Your task to perform on an android device: add a contact Image 0: 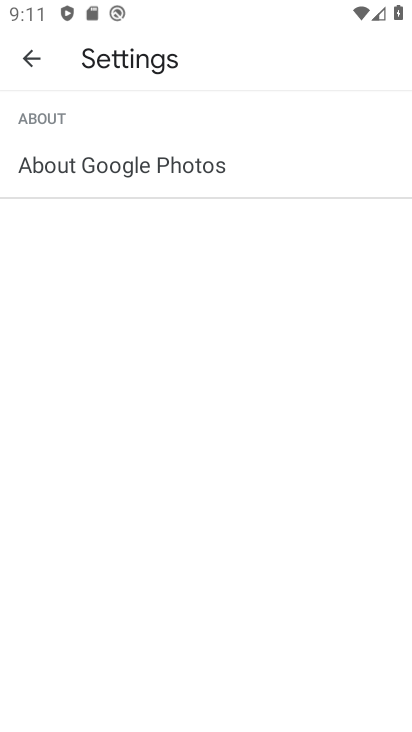
Step 0: press home button
Your task to perform on an android device: add a contact Image 1: 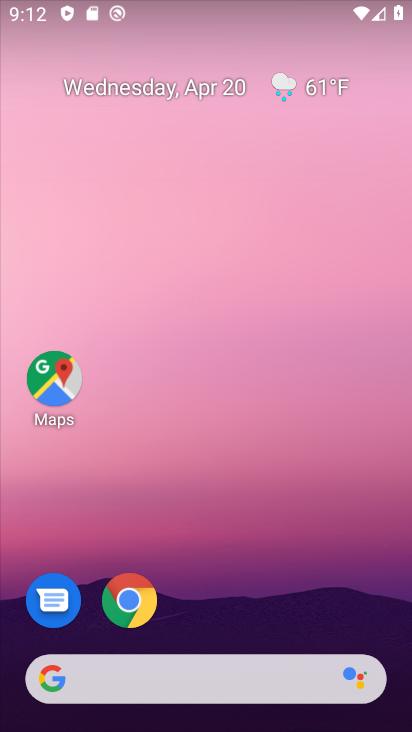
Step 1: drag from (210, 621) to (405, 215)
Your task to perform on an android device: add a contact Image 2: 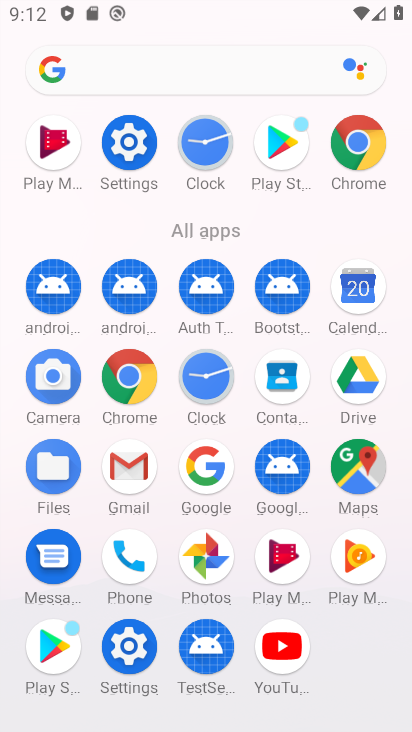
Step 2: click (294, 380)
Your task to perform on an android device: add a contact Image 3: 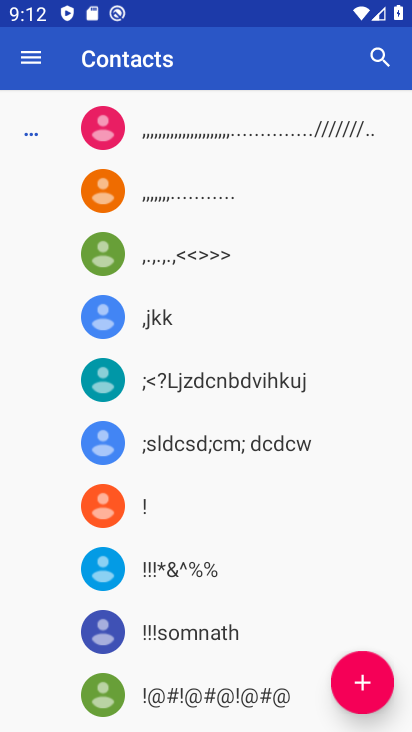
Step 3: click (347, 683)
Your task to perform on an android device: add a contact Image 4: 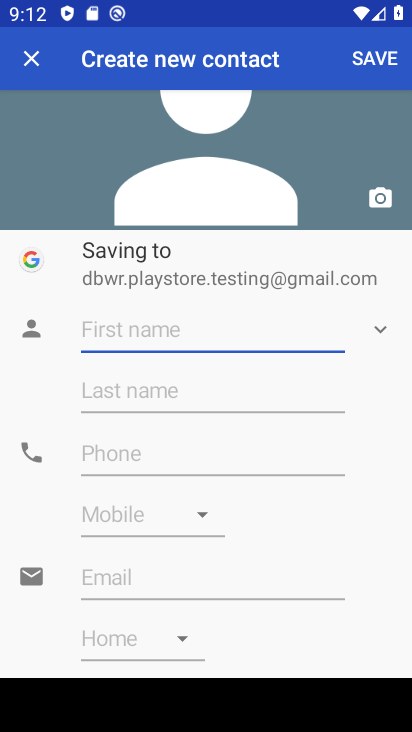
Step 4: type "kla"
Your task to perform on an android device: add a contact Image 5: 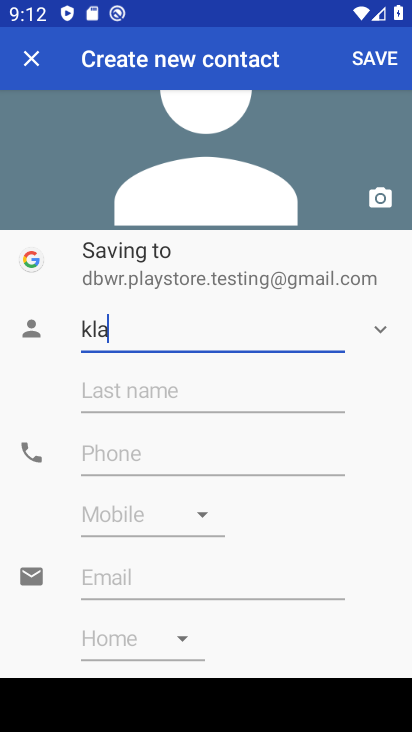
Step 5: click (169, 463)
Your task to perform on an android device: add a contact Image 6: 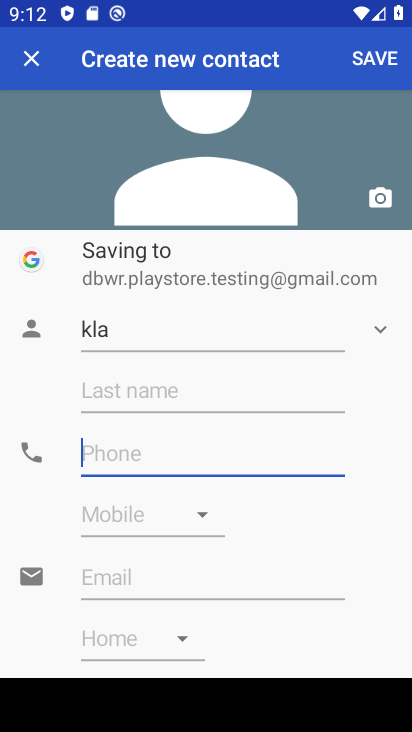
Step 6: type "8765678888"
Your task to perform on an android device: add a contact Image 7: 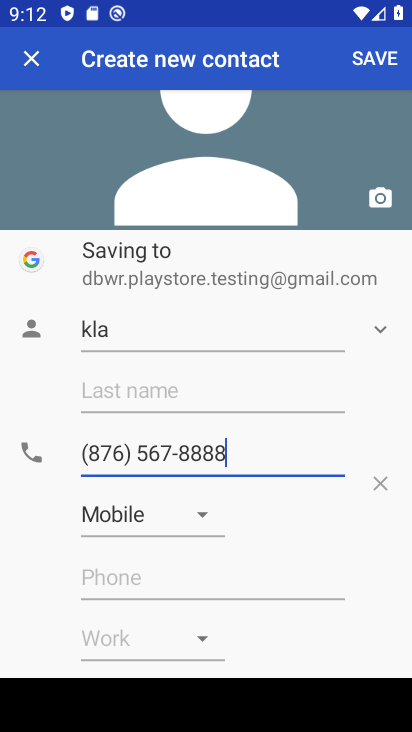
Step 7: click (376, 50)
Your task to perform on an android device: add a contact Image 8: 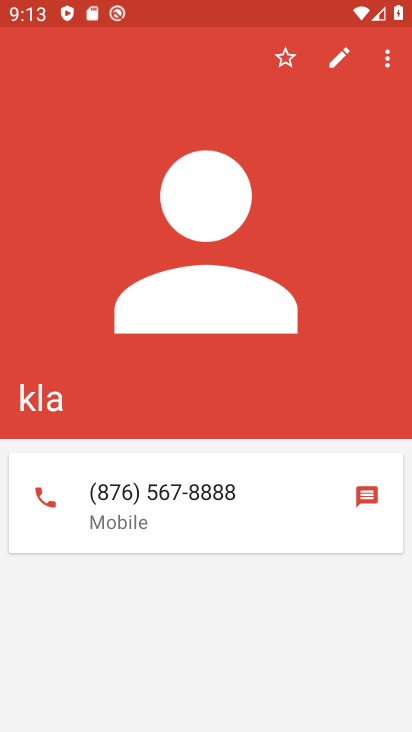
Step 8: task complete